Your task to perform on an android device: Open Google Chrome and click the shortcut for Amazon.com Image 0: 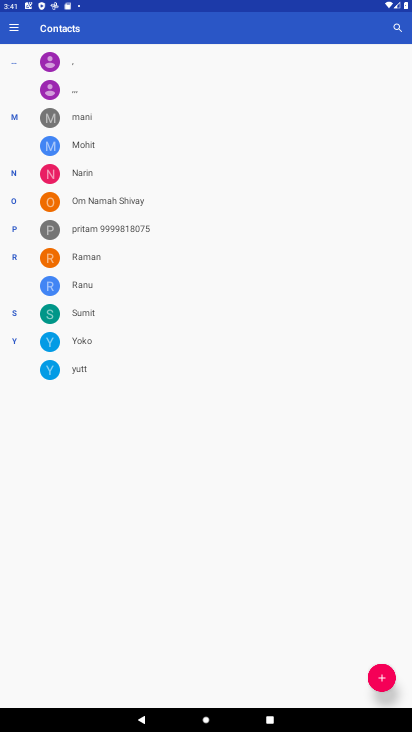
Step 0: press home button
Your task to perform on an android device: Open Google Chrome and click the shortcut for Amazon.com Image 1: 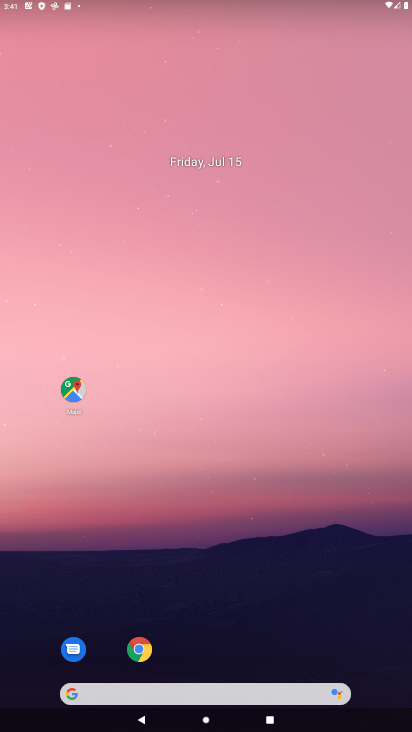
Step 1: drag from (258, 630) to (278, 106)
Your task to perform on an android device: Open Google Chrome and click the shortcut for Amazon.com Image 2: 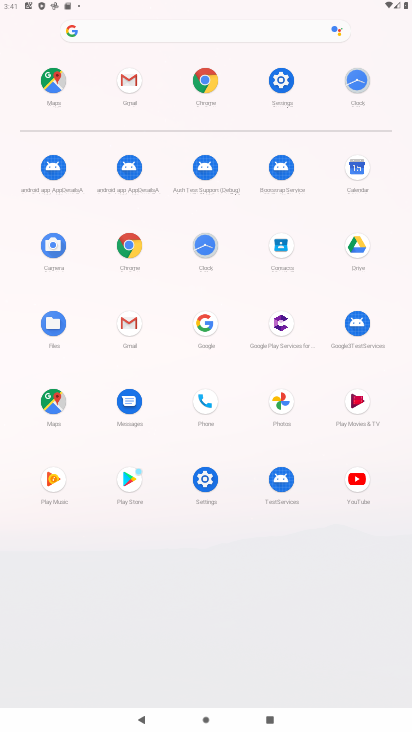
Step 2: click (132, 240)
Your task to perform on an android device: Open Google Chrome and click the shortcut for Amazon.com Image 3: 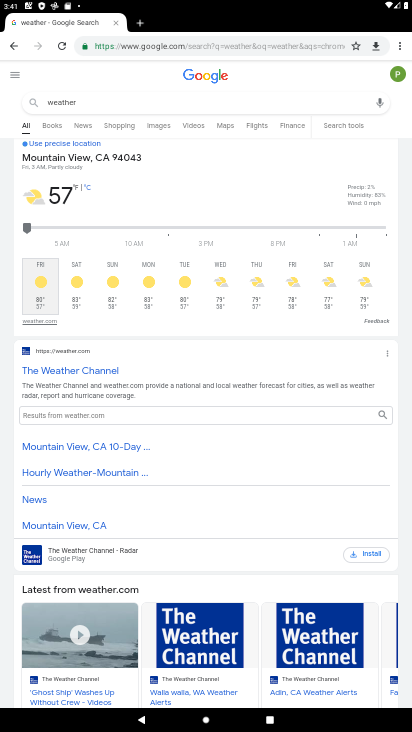
Step 3: click (136, 21)
Your task to perform on an android device: Open Google Chrome and click the shortcut for Amazon.com Image 4: 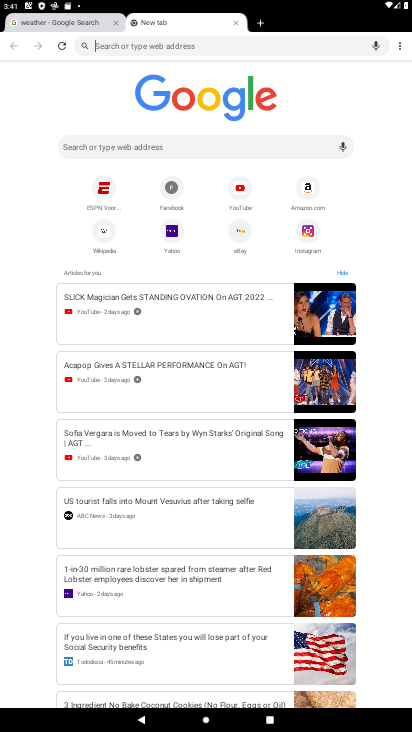
Step 4: click (313, 181)
Your task to perform on an android device: Open Google Chrome and click the shortcut for Amazon.com Image 5: 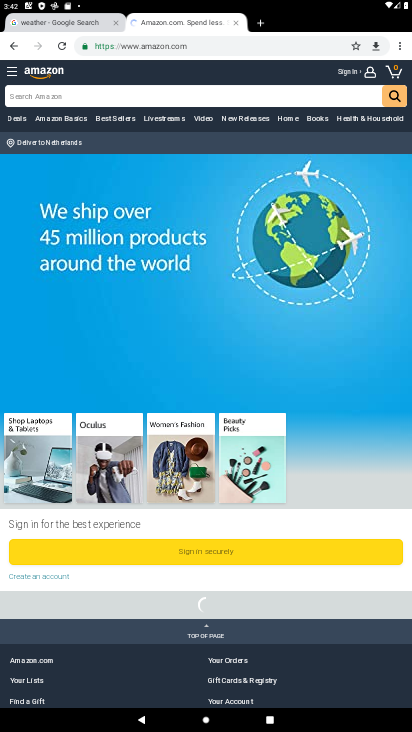
Step 5: task complete